Your task to perform on an android device: turn on showing notifications on the lock screen Image 0: 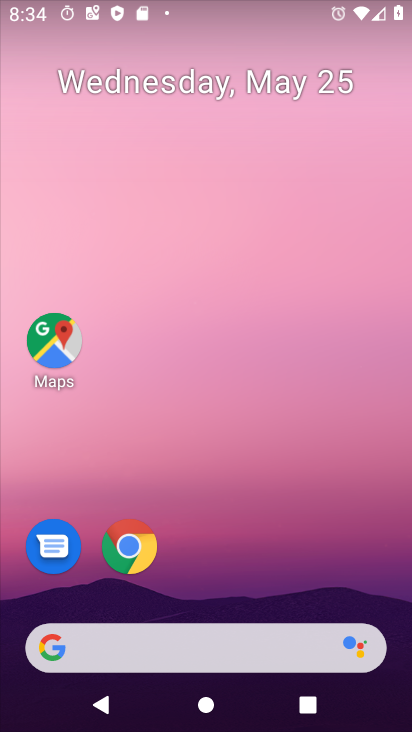
Step 0: drag from (218, 576) to (245, 35)
Your task to perform on an android device: turn on showing notifications on the lock screen Image 1: 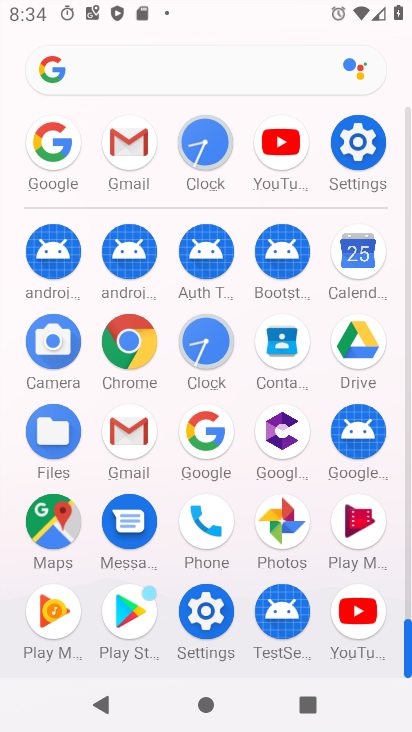
Step 1: click (357, 146)
Your task to perform on an android device: turn on showing notifications on the lock screen Image 2: 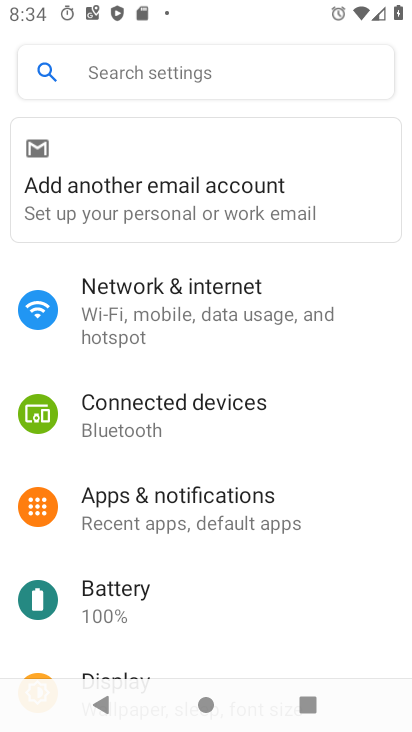
Step 2: click (118, 525)
Your task to perform on an android device: turn on showing notifications on the lock screen Image 3: 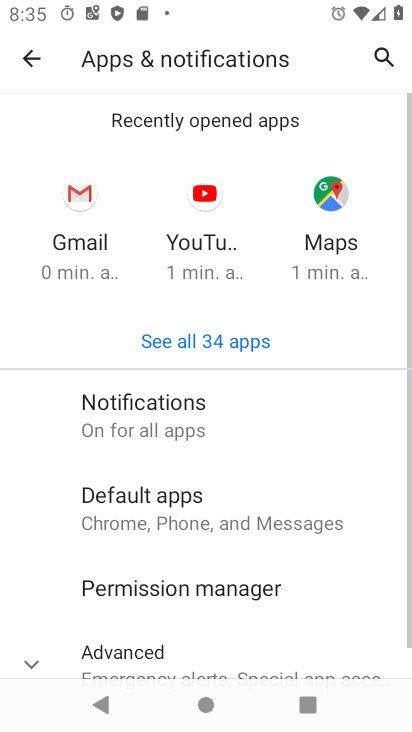
Step 3: click (123, 407)
Your task to perform on an android device: turn on showing notifications on the lock screen Image 4: 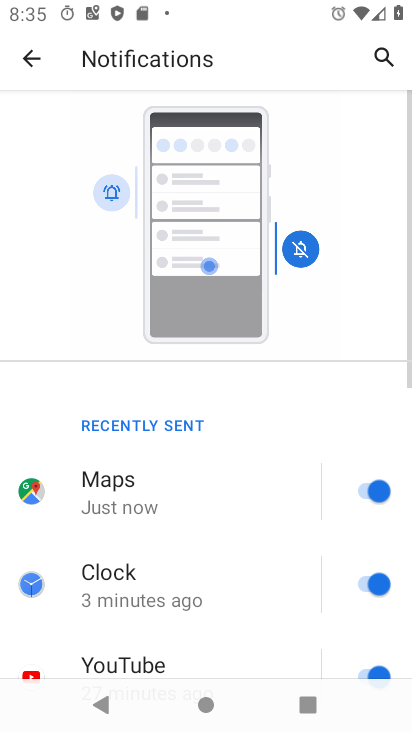
Step 4: drag from (161, 597) to (169, 229)
Your task to perform on an android device: turn on showing notifications on the lock screen Image 5: 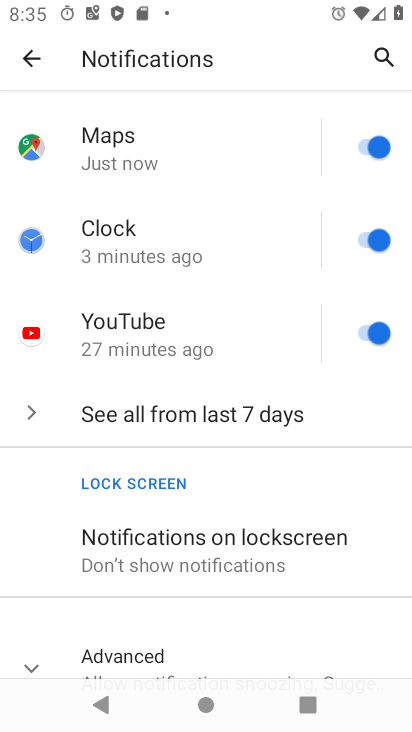
Step 5: click (161, 567)
Your task to perform on an android device: turn on showing notifications on the lock screen Image 6: 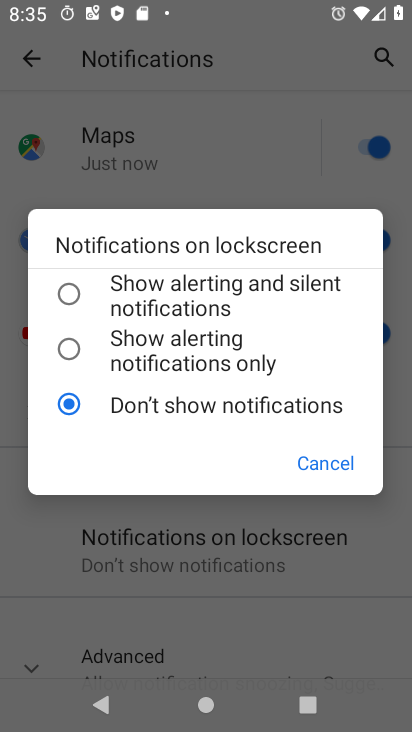
Step 6: click (59, 285)
Your task to perform on an android device: turn on showing notifications on the lock screen Image 7: 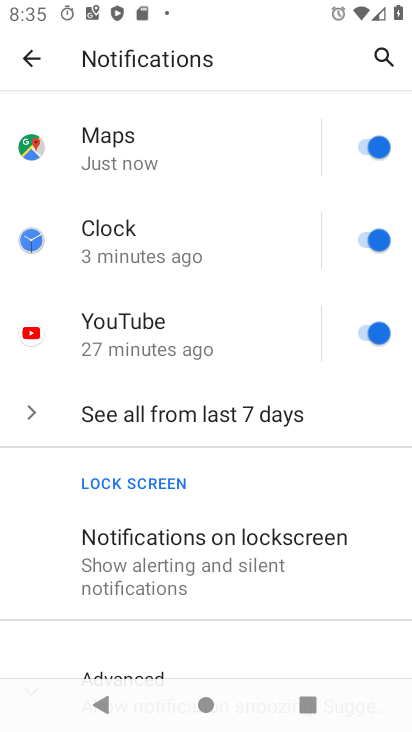
Step 7: task complete